Your task to perform on an android device: Go to wifi settings Image 0: 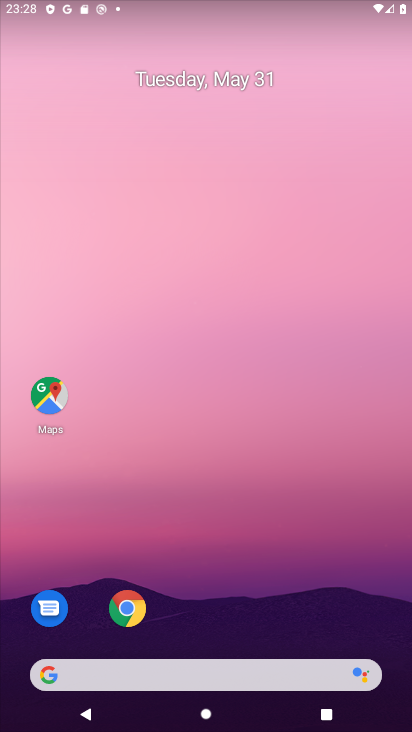
Step 0: drag from (338, 1) to (390, 725)
Your task to perform on an android device: Go to wifi settings Image 1: 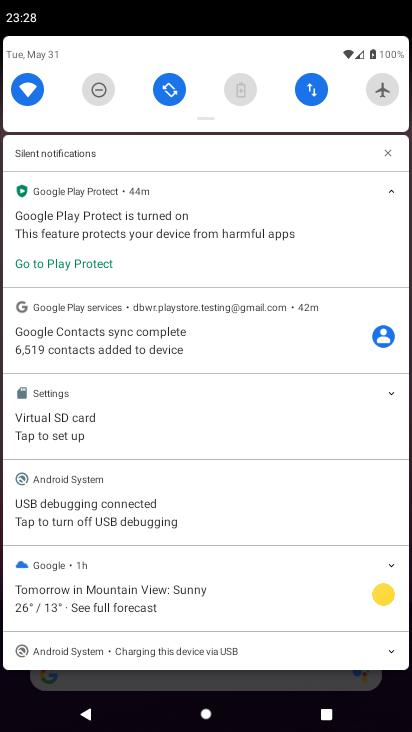
Step 1: drag from (212, 111) to (199, 578)
Your task to perform on an android device: Go to wifi settings Image 2: 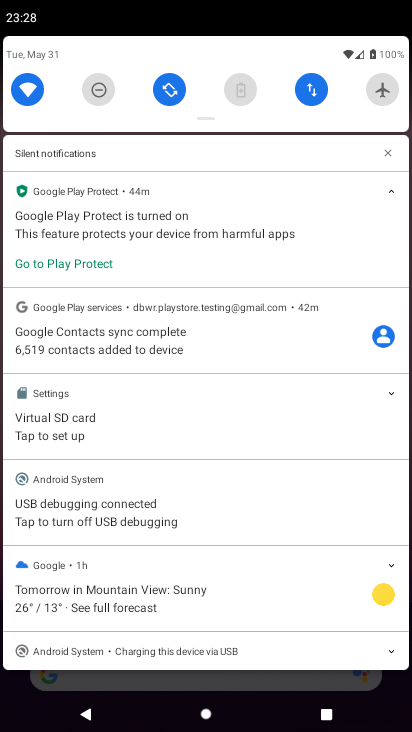
Step 2: drag from (202, 113) to (228, 674)
Your task to perform on an android device: Go to wifi settings Image 3: 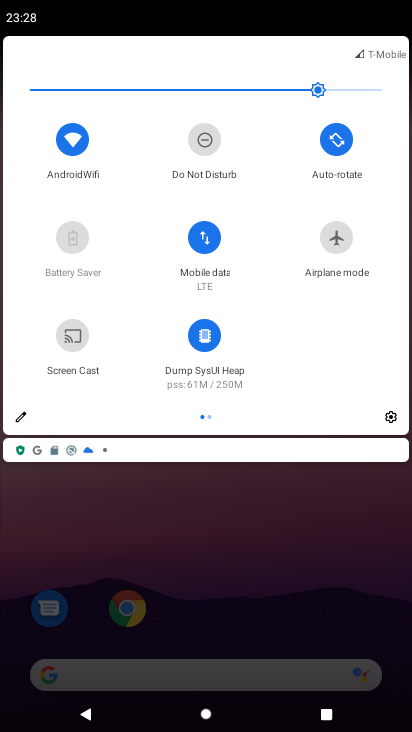
Step 3: click (68, 145)
Your task to perform on an android device: Go to wifi settings Image 4: 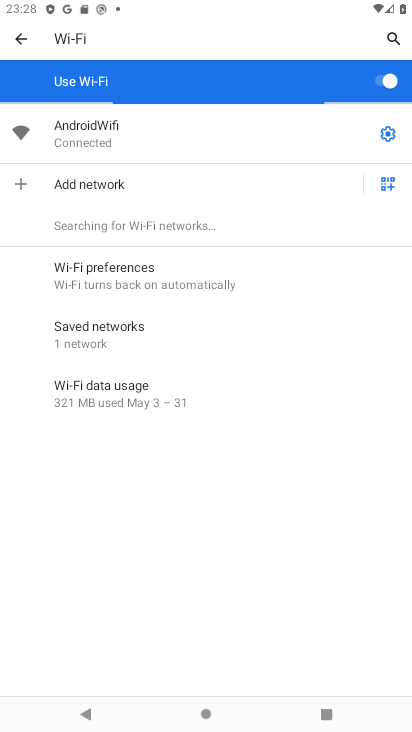
Step 4: task complete